Your task to perform on an android device: see tabs open on other devices in the chrome app Image 0: 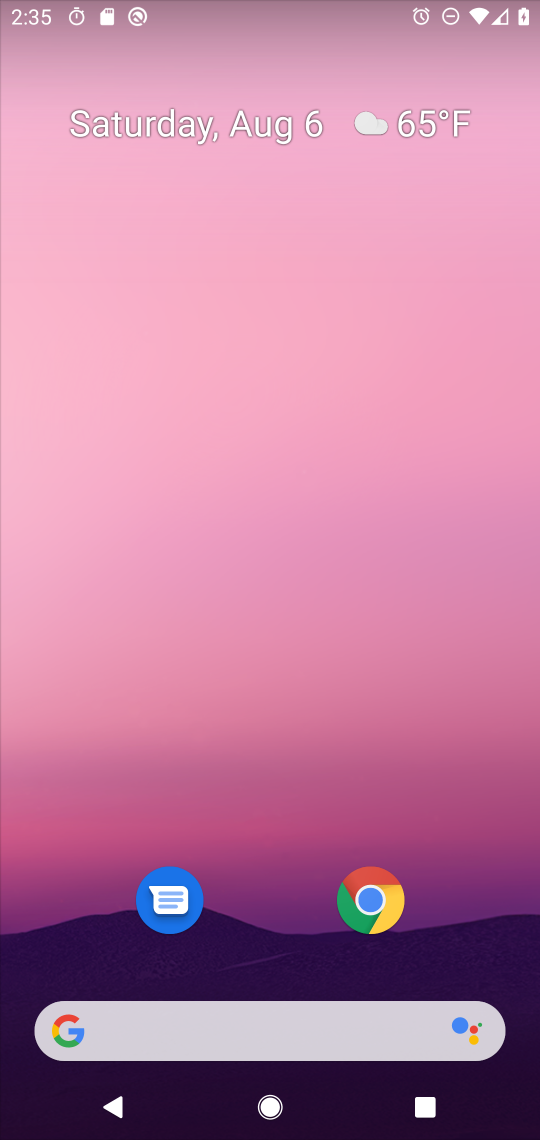
Step 0: drag from (243, 717) to (266, 254)
Your task to perform on an android device: see tabs open on other devices in the chrome app Image 1: 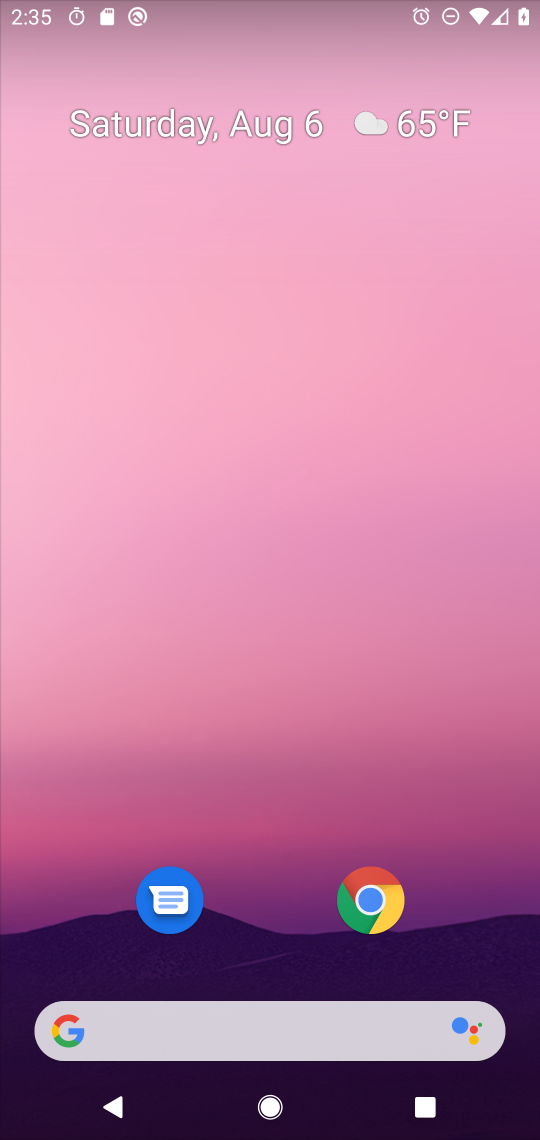
Step 1: click (367, 908)
Your task to perform on an android device: see tabs open on other devices in the chrome app Image 2: 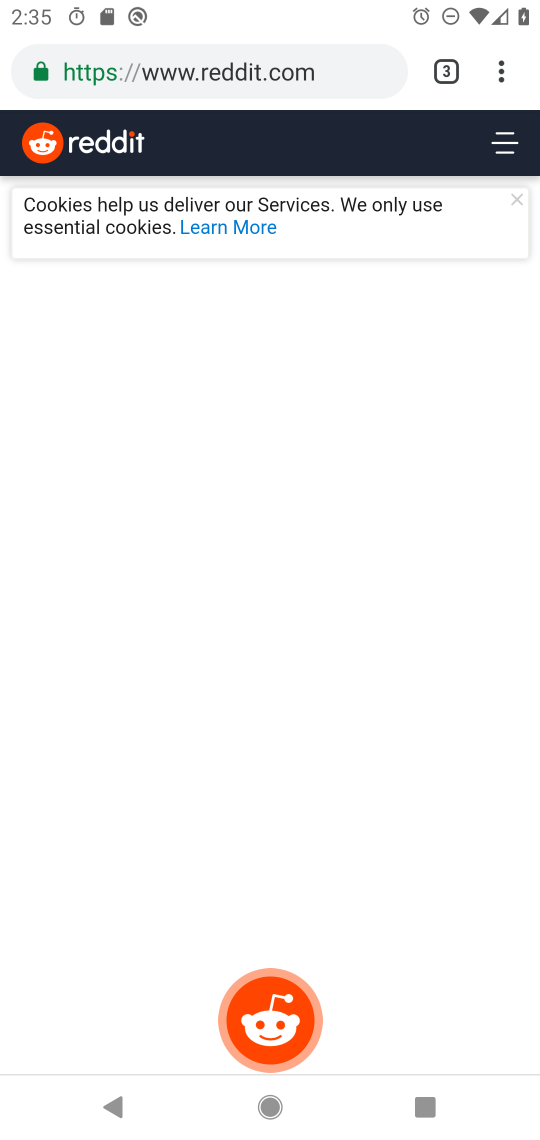
Step 2: click (501, 77)
Your task to perform on an android device: see tabs open on other devices in the chrome app Image 3: 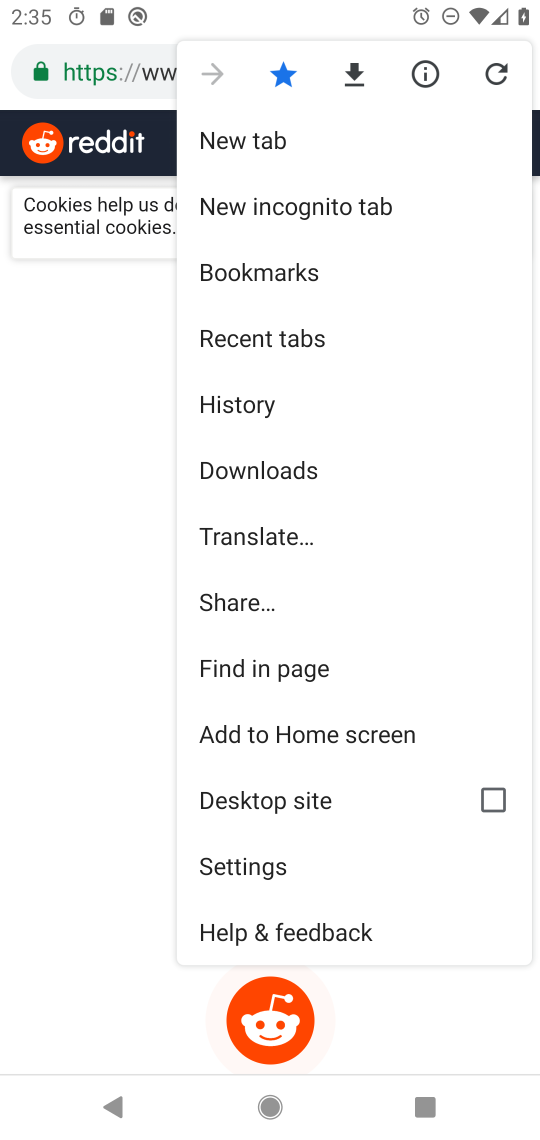
Step 3: click (259, 353)
Your task to perform on an android device: see tabs open on other devices in the chrome app Image 4: 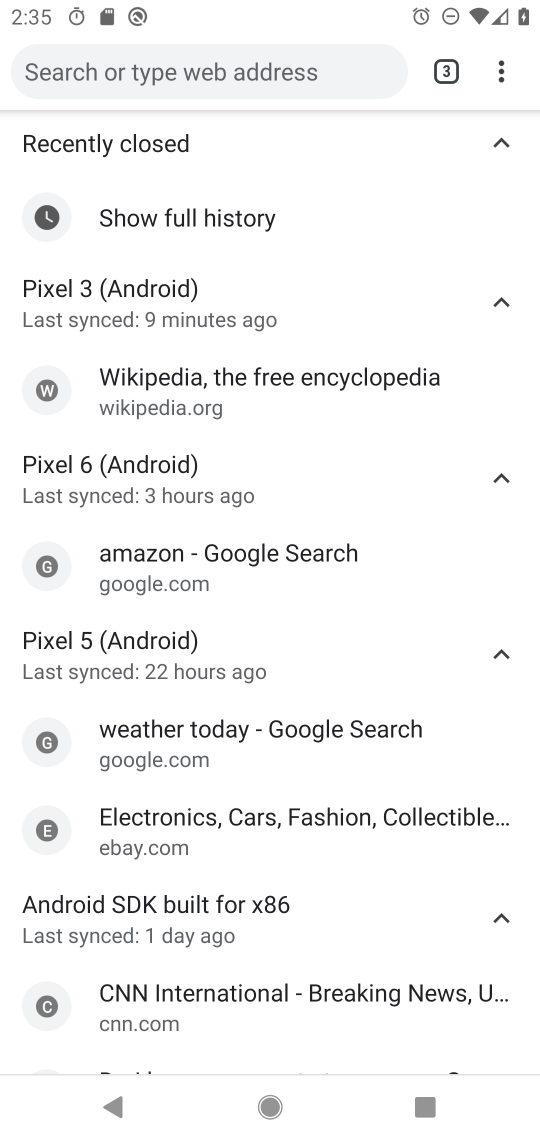
Step 4: task complete